Your task to perform on an android device: toggle notification dots Image 0: 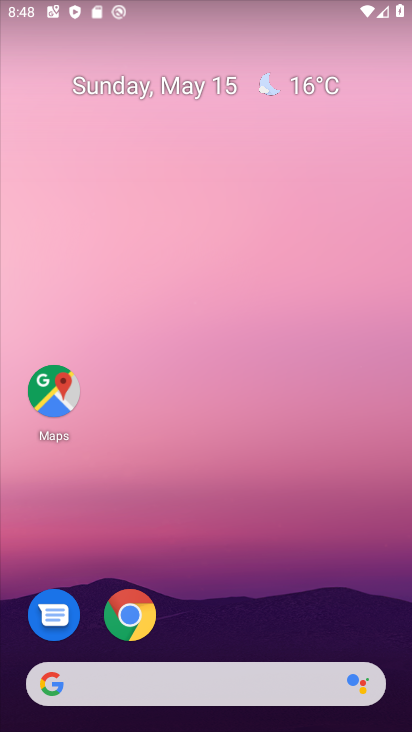
Step 0: drag from (291, 640) to (289, 206)
Your task to perform on an android device: toggle notification dots Image 1: 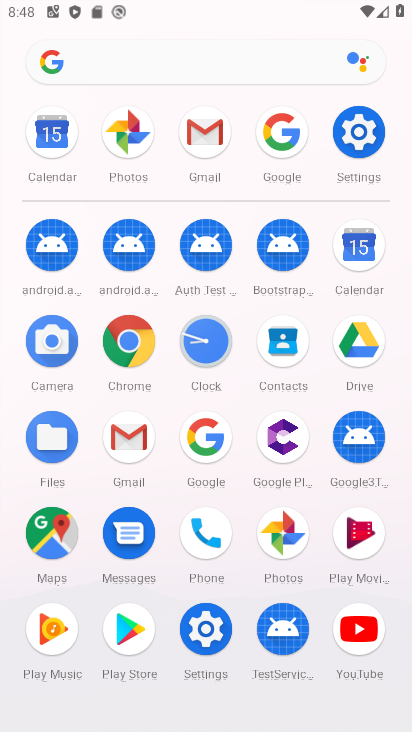
Step 1: click (370, 125)
Your task to perform on an android device: toggle notification dots Image 2: 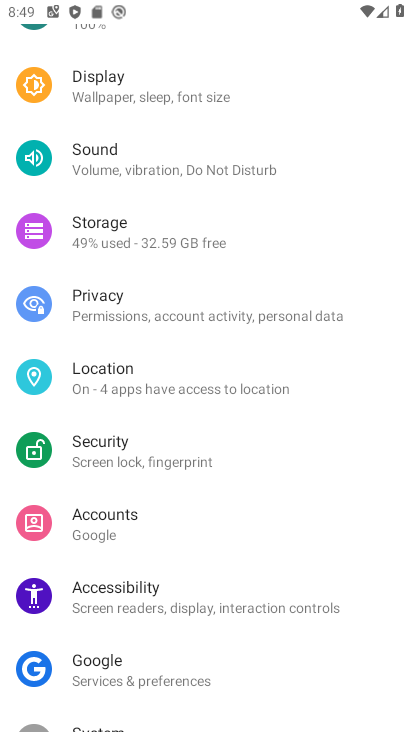
Step 2: drag from (153, 142) to (122, 328)
Your task to perform on an android device: toggle notification dots Image 3: 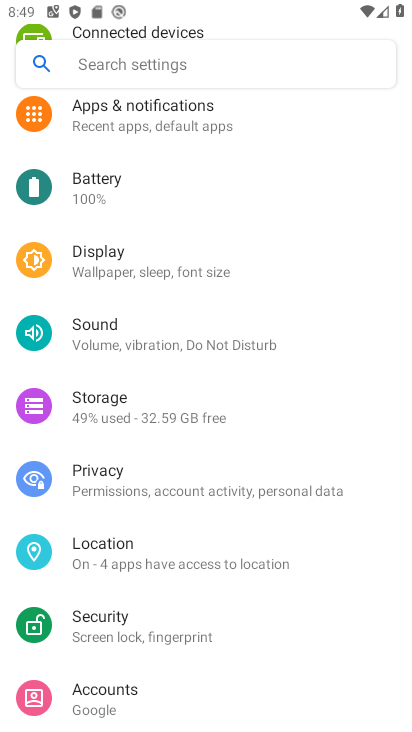
Step 3: click (164, 131)
Your task to perform on an android device: toggle notification dots Image 4: 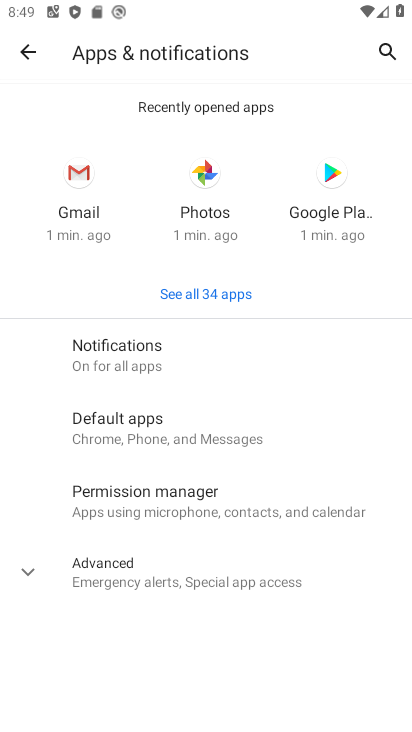
Step 4: click (170, 359)
Your task to perform on an android device: toggle notification dots Image 5: 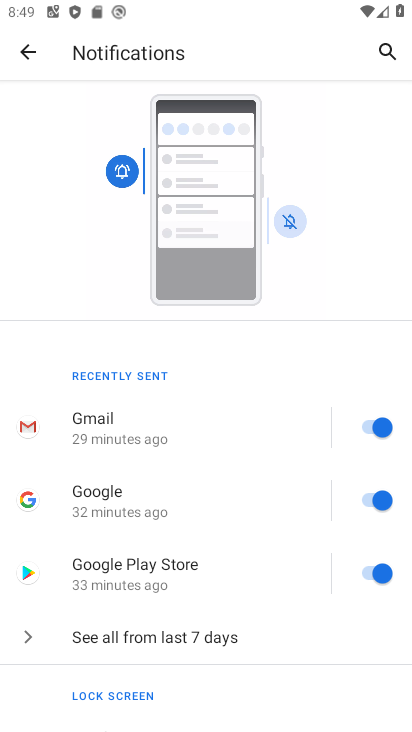
Step 5: drag from (179, 706) to (178, 205)
Your task to perform on an android device: toggle notification dots Image 6: 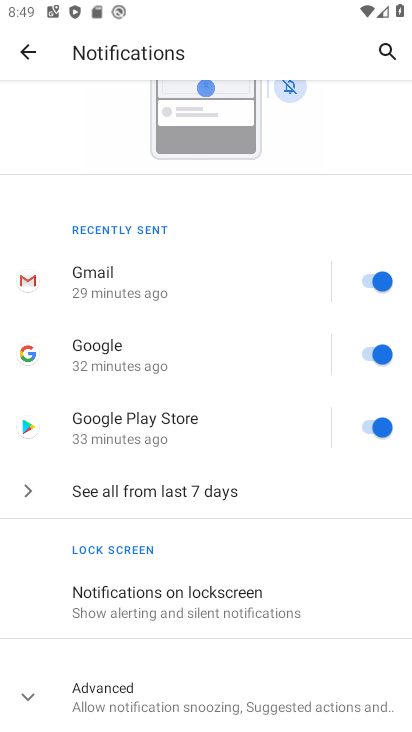
Step 6: click (158, 686)
Your task to perform on an android device: toggle notification dots Image 7: 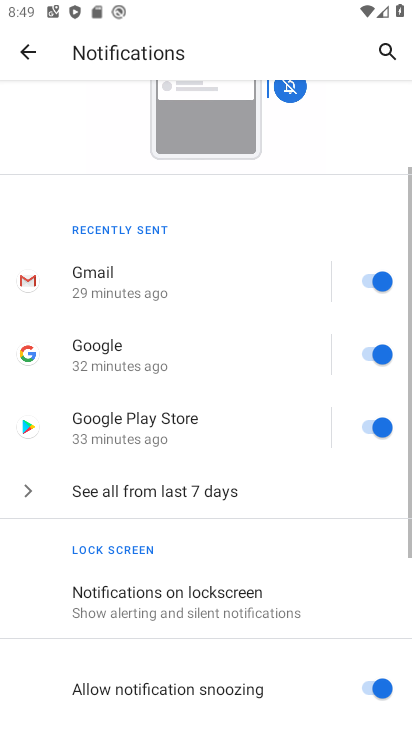
Step 7: drag from (161, 676) to (195, 371)
Your task to perform on an android device: toggle notification dots Image 8: 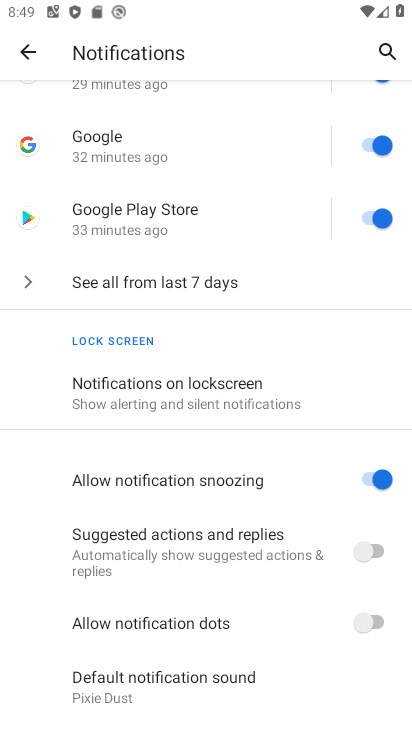
Step 8: click (364, 626)
Your task to perform on an android device: toggle notification dots Image 9: 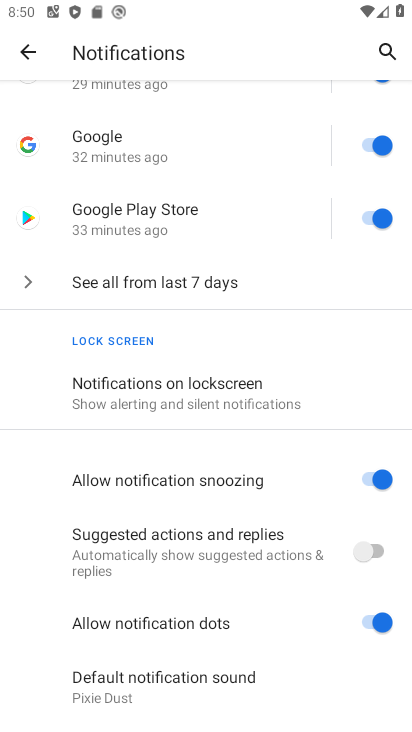
Step 9: task complete